Your task to perform on an android device: change the clock display to show seconds Image 0: 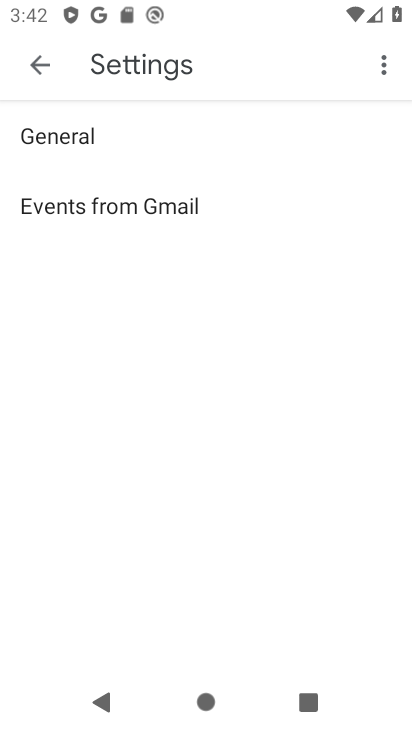
Step 0: press home button
Your task to perform on an android device: change the clock display to show seconds Image 1: 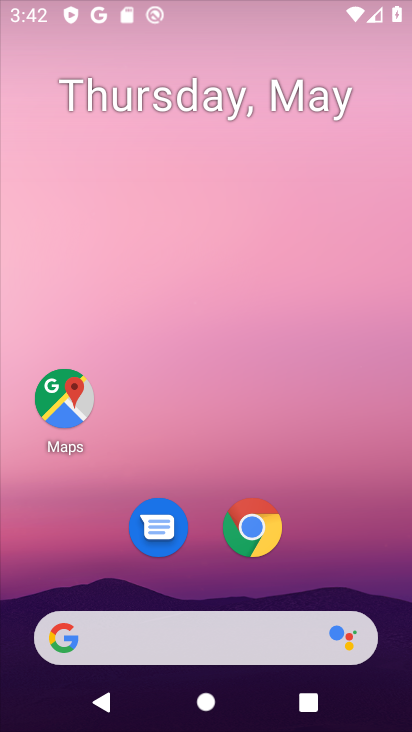
Step 1: drag from (215, 646) to (251, 21)
Your task to perform on an android device: change the clock display to show seconds Image 2: 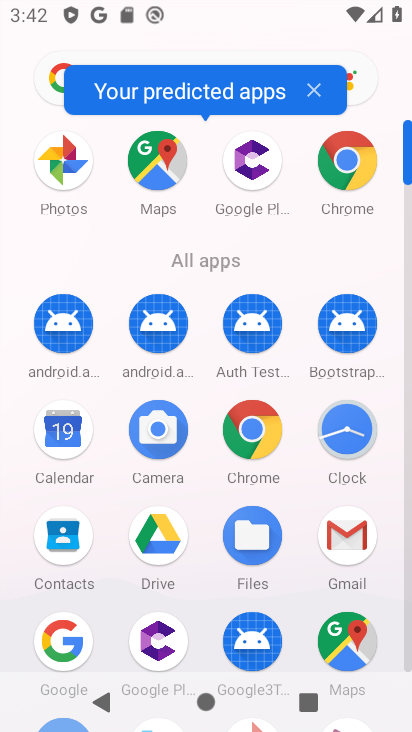
Step 2: click (357, 442)
Your task to perform on an android device: change the clock display to show seconds Image 3: 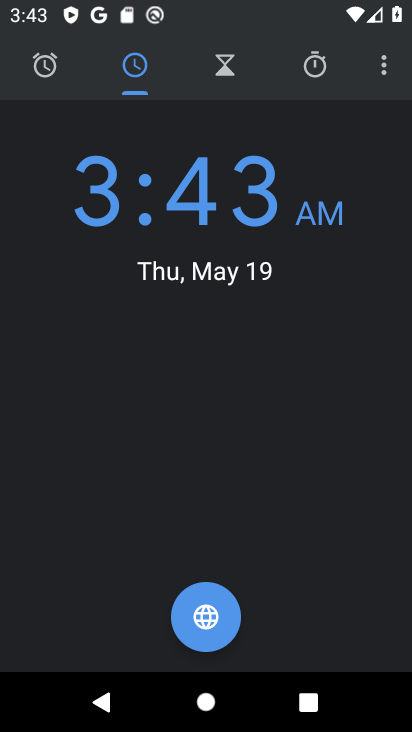
Step 3: click (377, 61)
Your task to perform on an android device: change the clock display to show seconds Image 4: 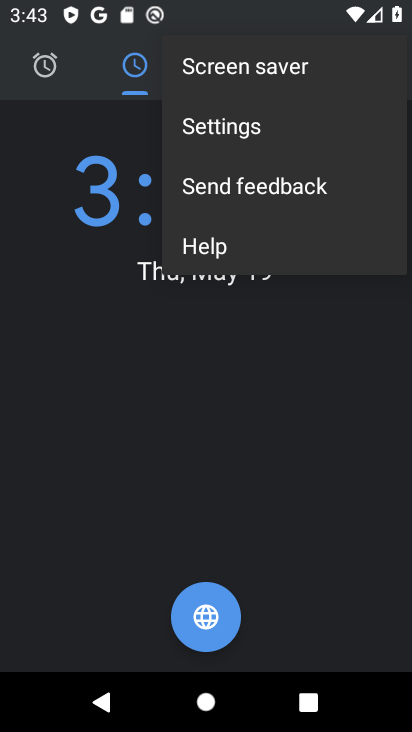
Step 4: click (214, 132)
Your task to perform on an android device: change the clock display to show seconds Image 5: 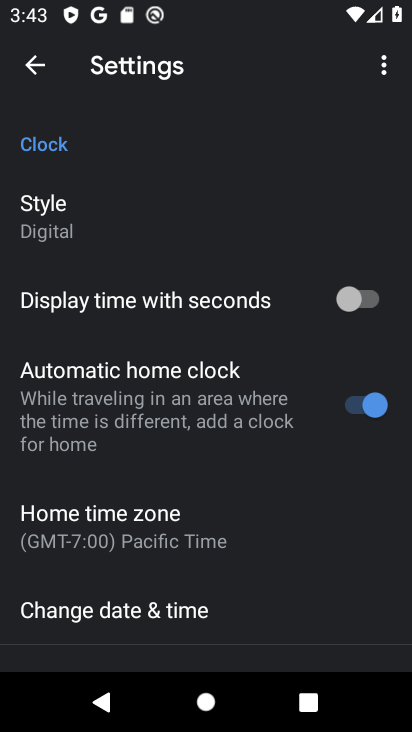
Step 5: click (337, 292)
Your task to perform on an android device: change the clock display to show seconds Image 6: 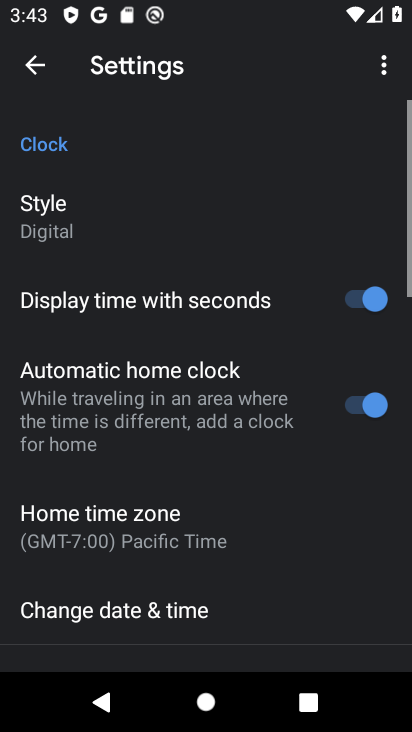
Step 6: task complete